Your task to perform on an android device: Check the weather Image 0: 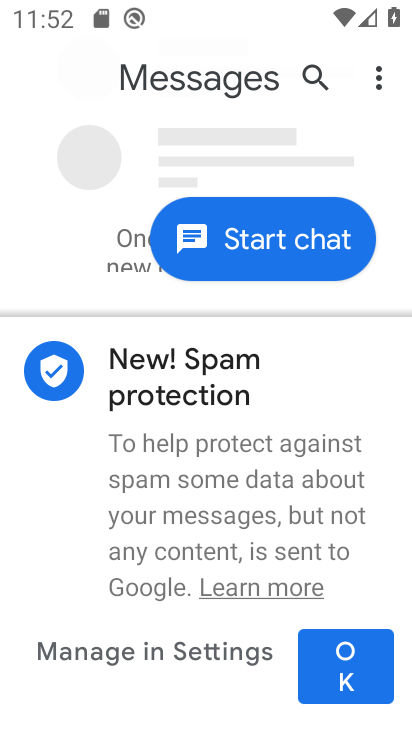
Step 0: press home button
Your task to perform on an android device: Check the weather Image 1: 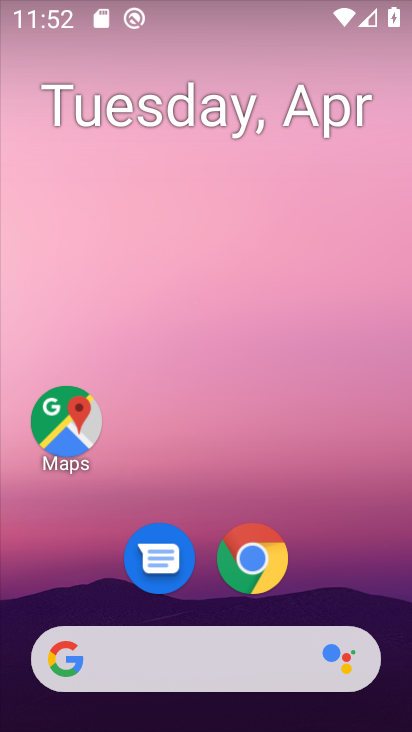
Step 1: drag from (13, 135) to (408, 225)
Your task to perform on an android device: Check the weather Image 2: 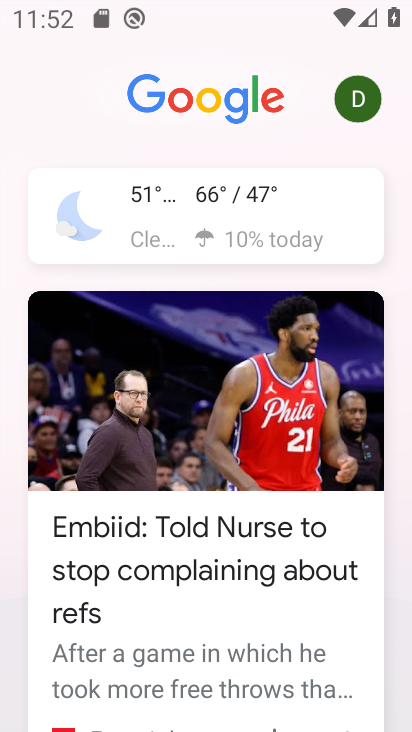
Step 2: click (226, 218)
Your task to perform on an android device: Check the weather Image 3: 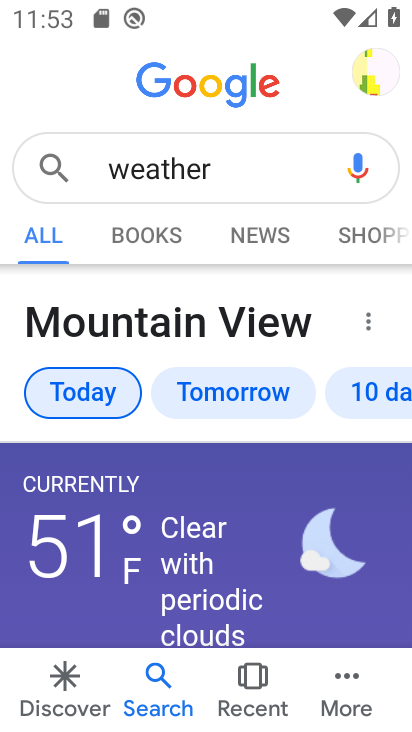
Step 3: task complete